Your task to perform on an android device: Open display settings Image 0: 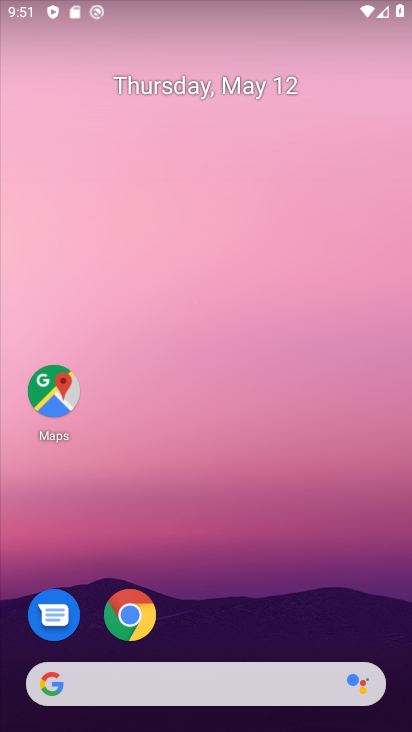
Step 0: drag from (204, 720) to (243, 135)
Your task to perform on an android device: Open display settings Image 1: 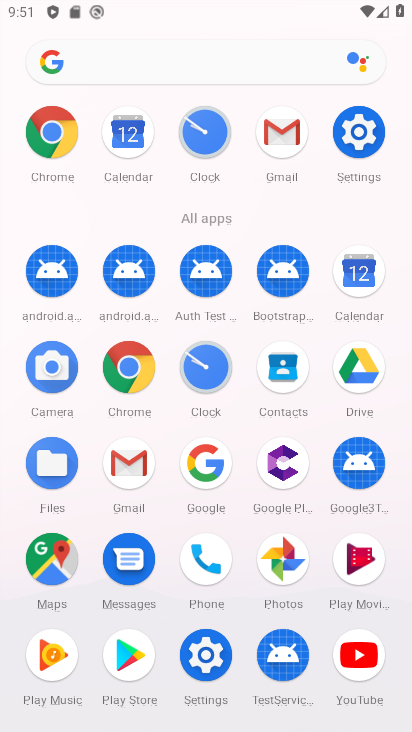
Step 1: click (361, 129)
Your task to perform on an android device: Open display settings Image 2: 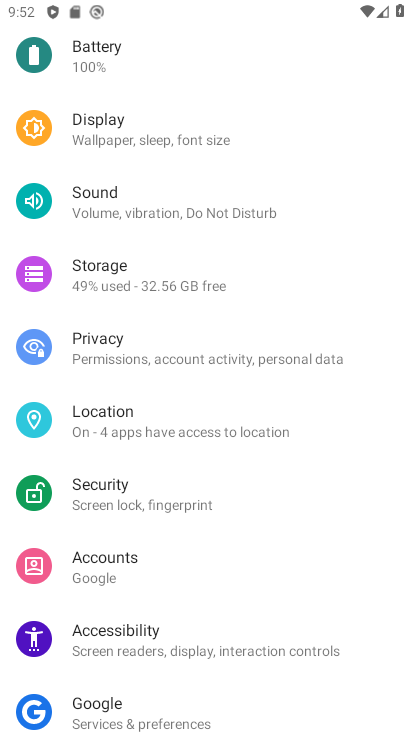
Step 2: click (120, 137)
Your task to perform on an android device: Open display settings Image 3: 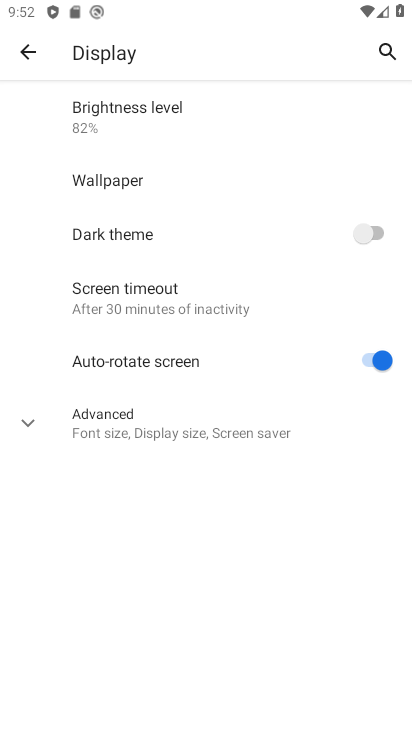
Step 3: task complete